Your task to perform on an android device: create a new album in the google photos Image 0: 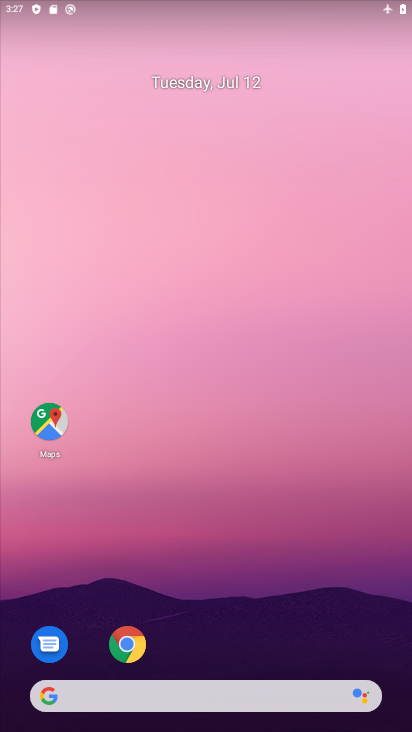
Step 0: drag from (295, 597) to (279, 125)
Your task to perform on an android device: create a new album in the google photos Image 1: 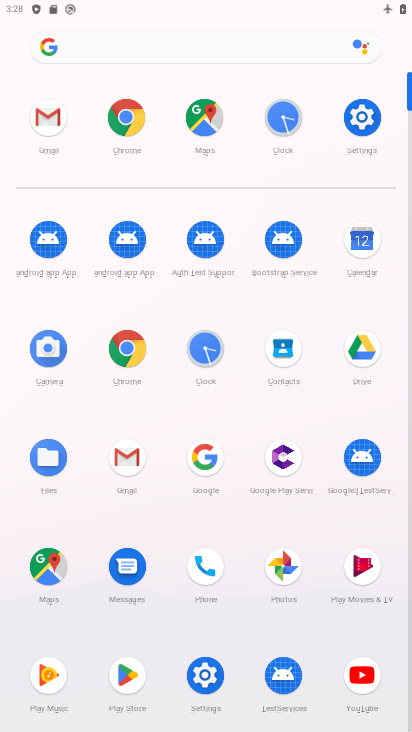
Step 1: click (286, 562)
Your task to perform on an android device: create a new album in the google photos Image 2: 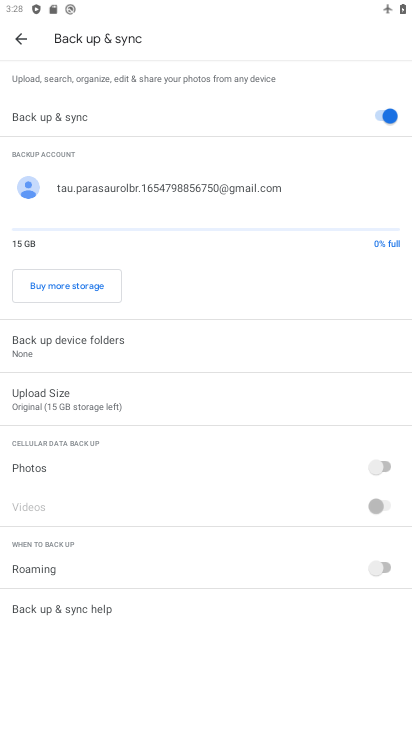
Step 2: click (23, 34)
Your task to perform on an android device: create a new album in the google photos Image 3: 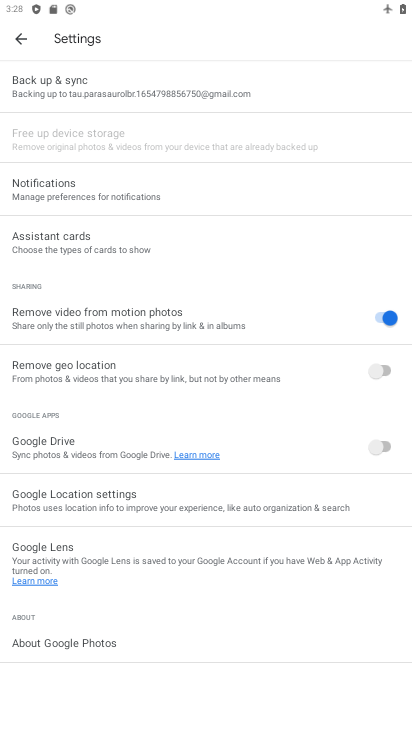
Step 3: click (23, 34)
Your task to perform on an android device: create a new album in the google photos Image 4: 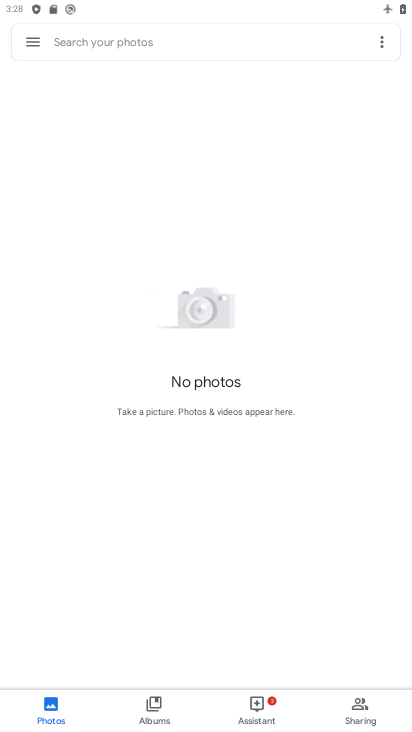
Step 4: click (164, 705)
Your task to perform on an android device: create a new album in the google photos Image 5: 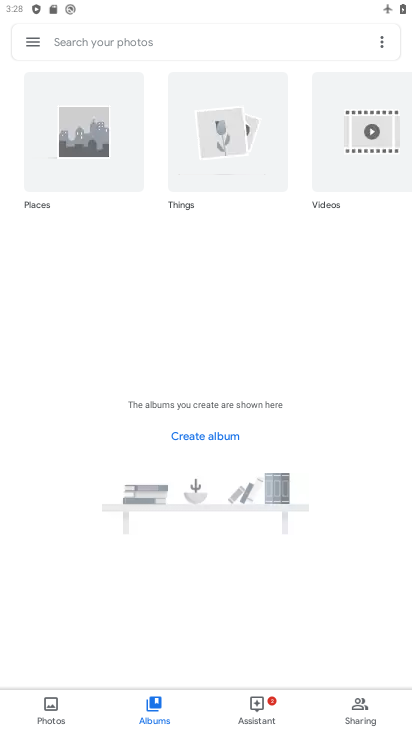
Step 5: click (197, 442)
Your task to perform on an android device: create a new album in the google photos Image 6: 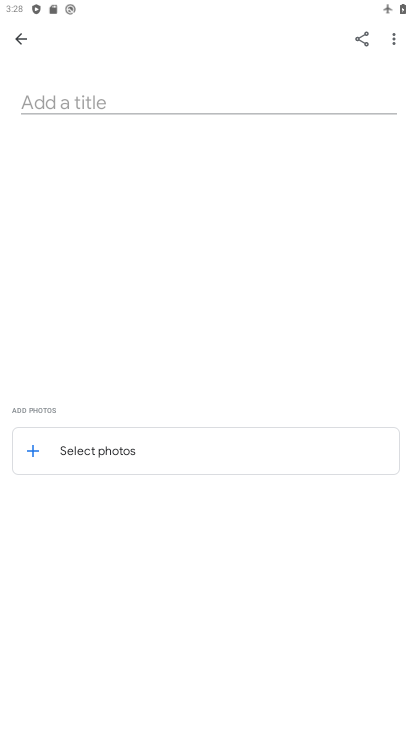
Step 6: click (133, 98)
Your task to perform on an android device: create a new album in the google photos Image 7: 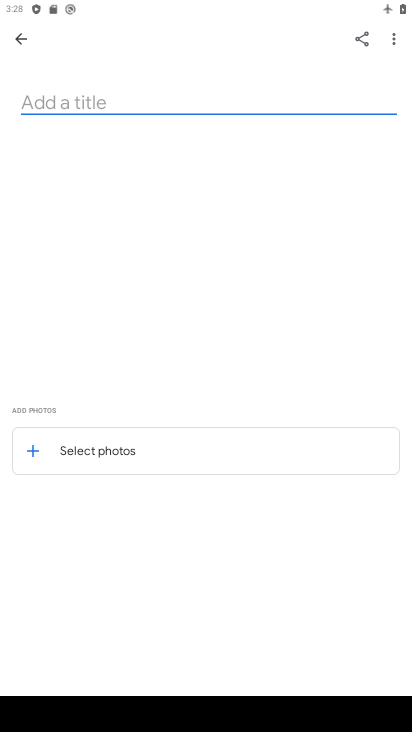
Step 7: type "hasina"
Your task to perform on an android device: create a new album in the google photos Image 8: 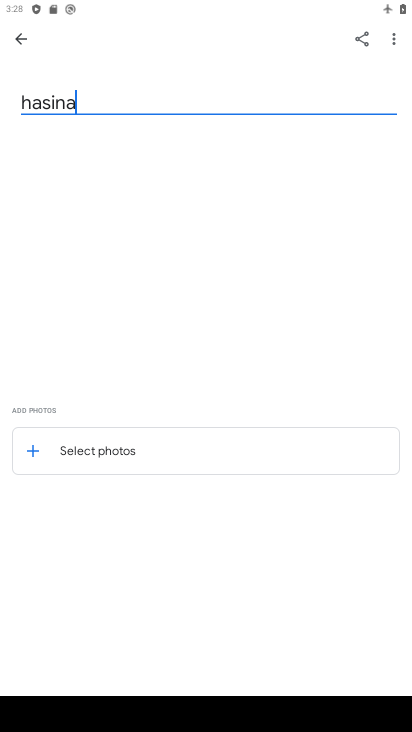
Step 8: press enter
Your task to perform on an android device: create a new album in the google photos Image 9: 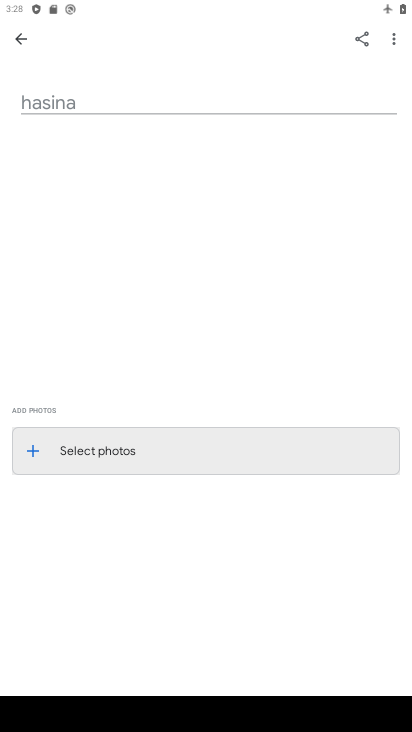
Step 9: press enter
Your task to perform on an android device: create a new album in the google photos Image 10: 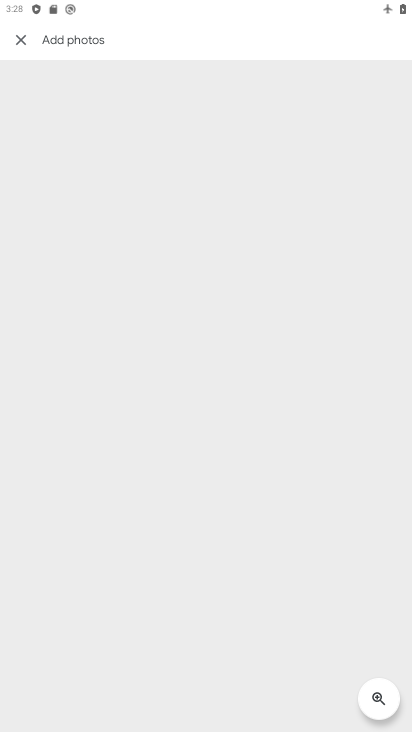
Step 10: press enter
Your task to perform on an android device: create a new album in the google photos Image 11: 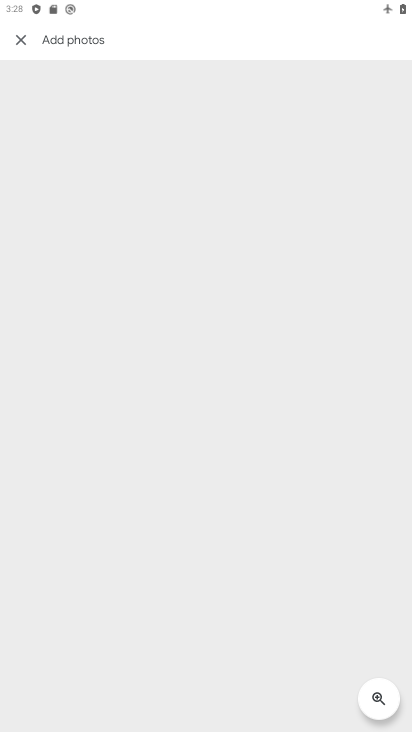
Step 11: click (21, 40)
Your task to perform on an android device: create a new album in the google photos Image 12: 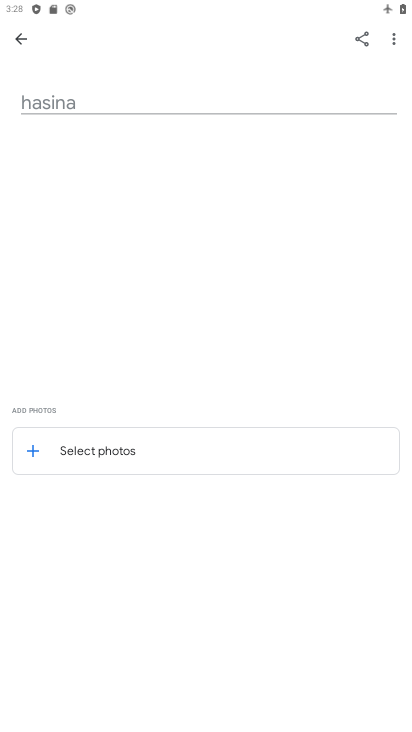
Step 12: click (19, 33)
Your task to perform on an android device: create a new album in the google photos Image 13: 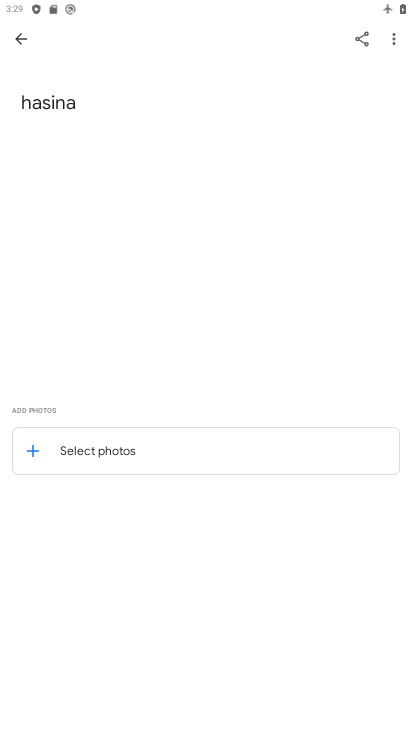
Step 13: click (24, 36)
Your task to perform on an android device: create a new album in the google photos Image 14: 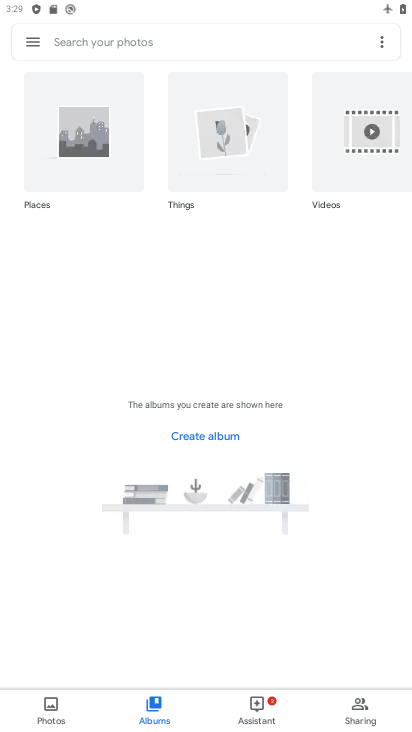
Step 14: task complete